Your task to perform on an android device: allow notifications from all sites in the chrome app Image 0: 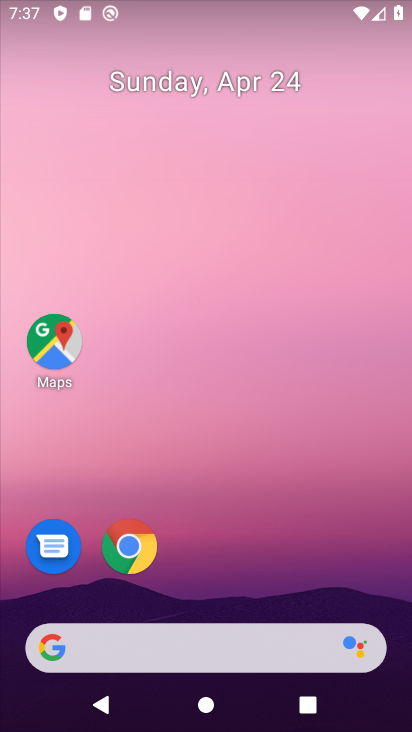
Step 0: click (116, 563)
Your task to perform on an android device: allow notifications from all sites in the chrome app Image 1: 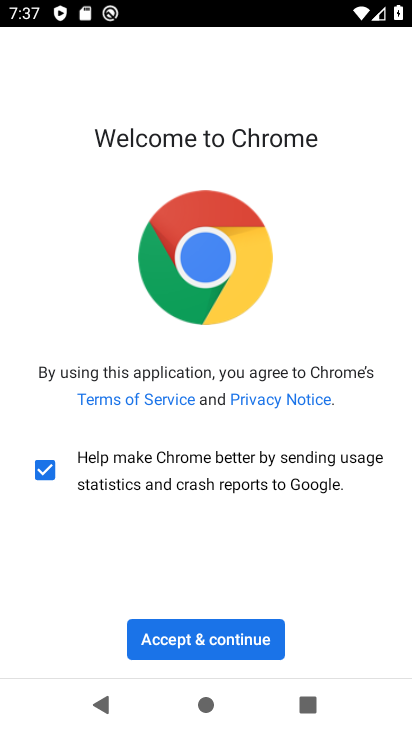
Step 1: click (179, 643)
Your task to perform on an android device: allow notifications from all sites in the chrome app Image 2: 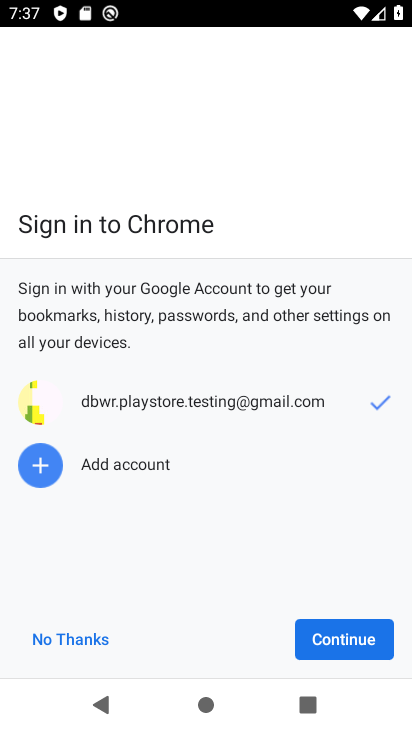
Step 2: click (331, 643)
Your task to perform on an android device: allow notifications from all sites in the chrome app Image 3: 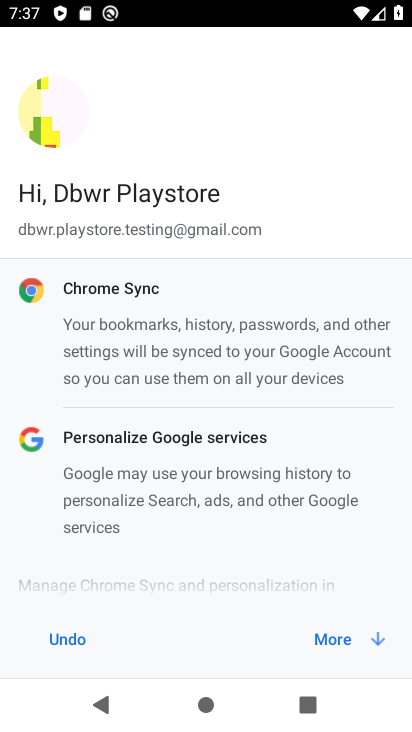
Step 3: click (331, 643)
Your task to perform on an android device: allow notifications from all sites in the chrome app Image 4: 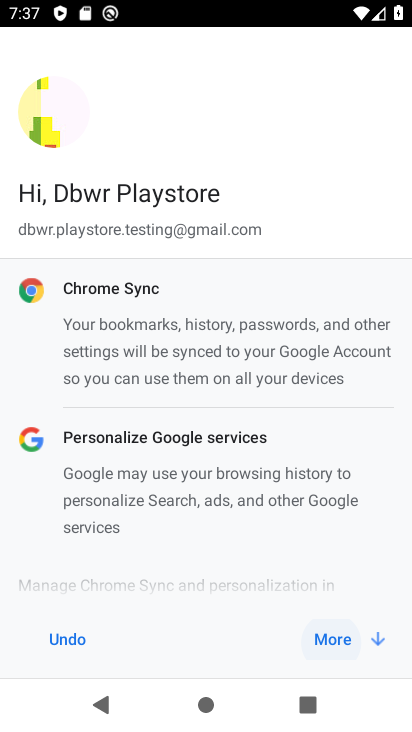
Step 4: click (331, 643)
Your task to perform on an android device: allow notifications from all sites in the chrome app Image 5: 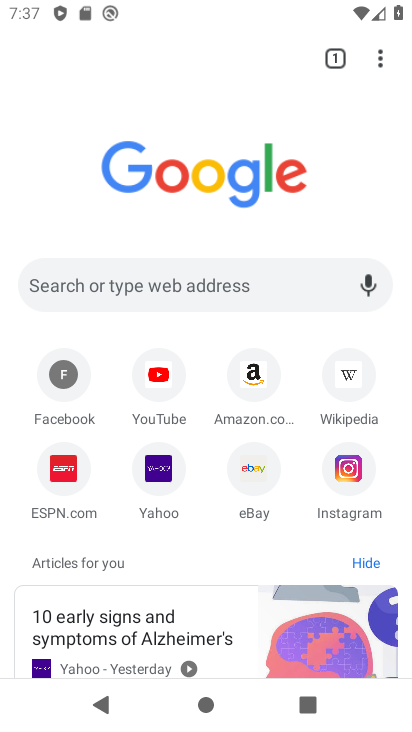
Step 5: click (380, 63)
Your task to perform on an android device: allow notifications from all sites in the chrome app Image 6: 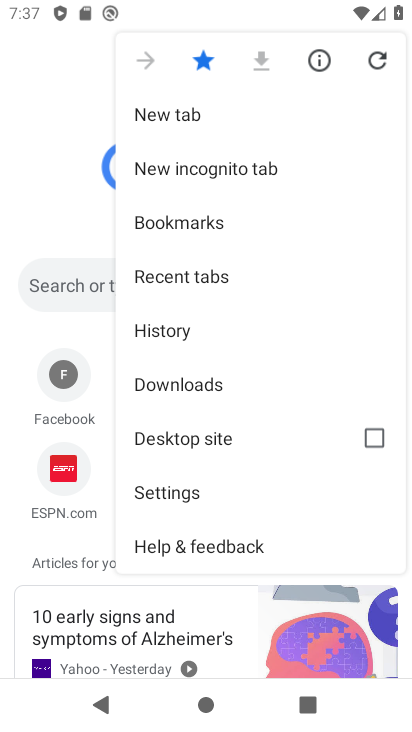
Step 6: click (229, 487)
Your task to perform on an android device: allow notifications from all sites in the chrome app Image 7: 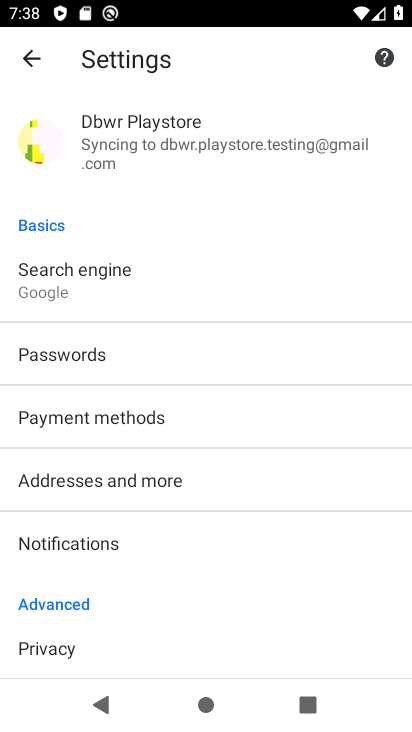
Step 7: drag from (150, 669) to (188, 374)
Your task to perform on an android device: allow notifications from all sites in the chrome app Image 8: 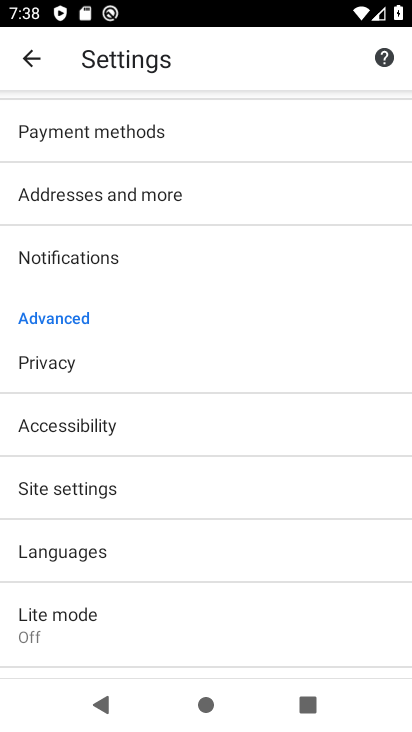
Step 8: click (120, 239)
Your task to perform on an android device: allow notifications from all sites in the chrome app Image 9: 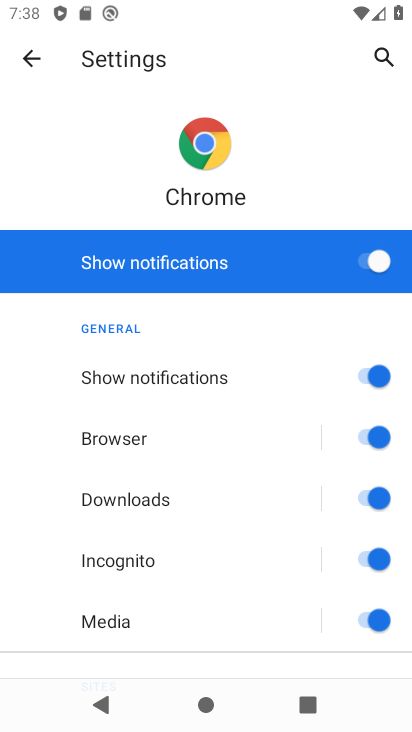
Step 9: task complete